Your task to perform on an android device: toggle pop-ups in chrome Image 0: 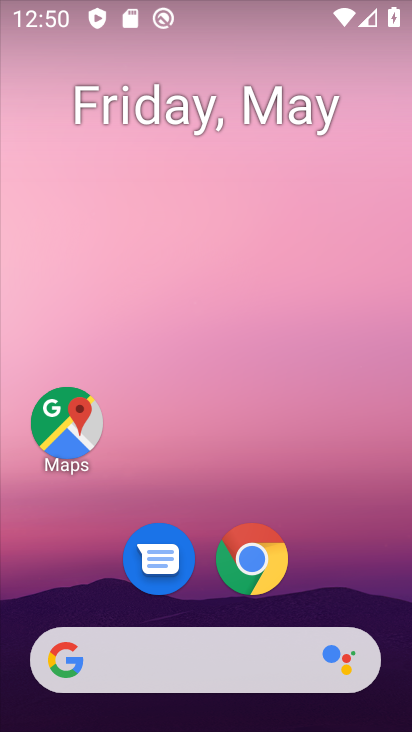
Step 0: click (254, 561)
Your task to perform on an android device: toggle pop-ups in chrome Image 1: 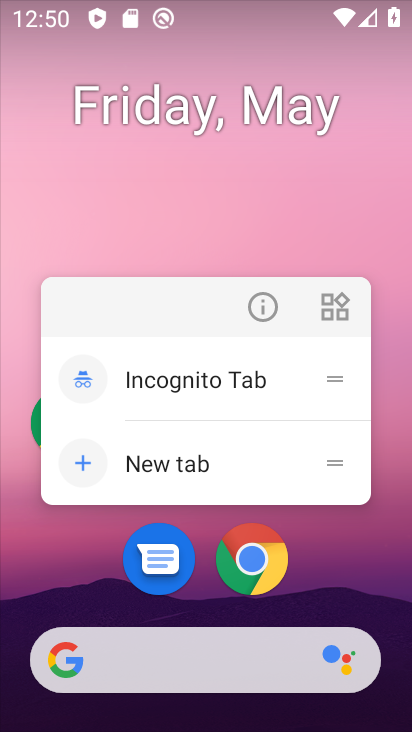
Step 1: click (253, 556)
Your task to perform on an android device: toggle pop-ups in chrome Image 2: 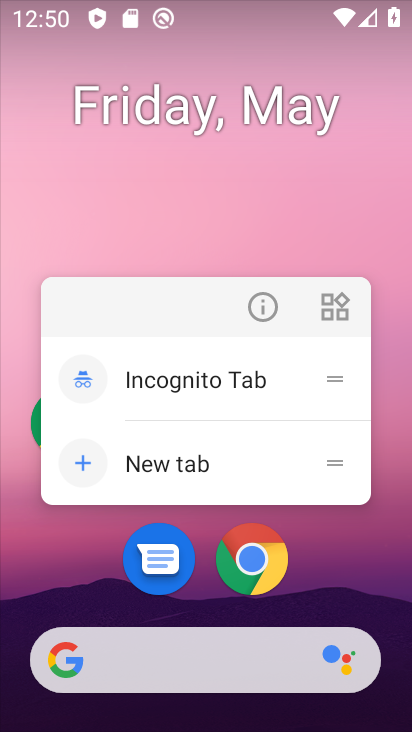
Step 2: click (253, 556)
Your task to perform on an android device: toggle pop-ups in chrome Image 3: 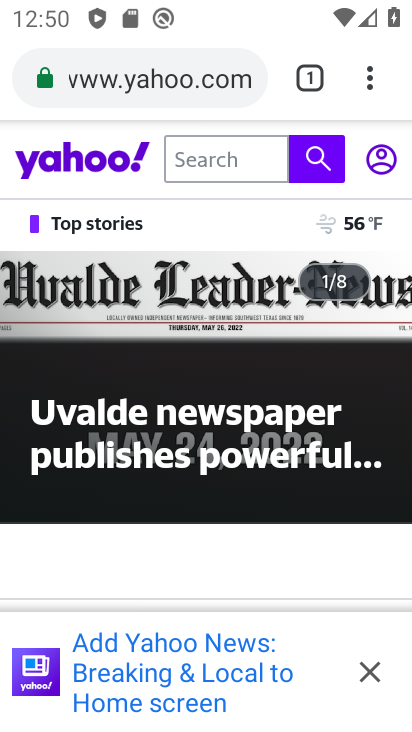
Step 3: drag from (368, 62) to (129, 611)
Your task to perform on an android device: toggle pop-ups in chrome Image 4: 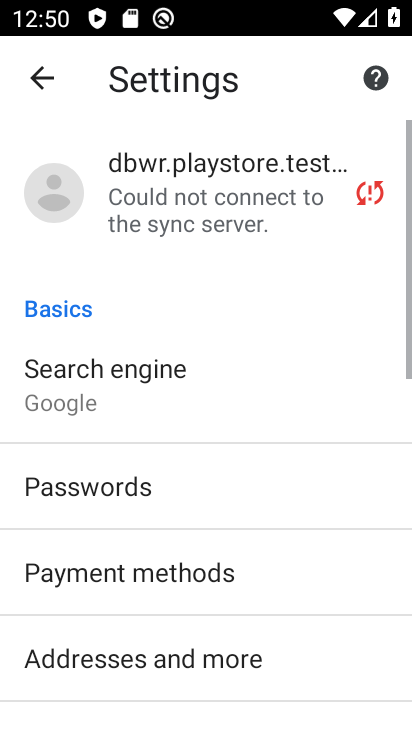
Step 4: drag from (144, 344) to (211, 71)
Your task to perform on an android device: toggle pop-ups in chrome Image 5: 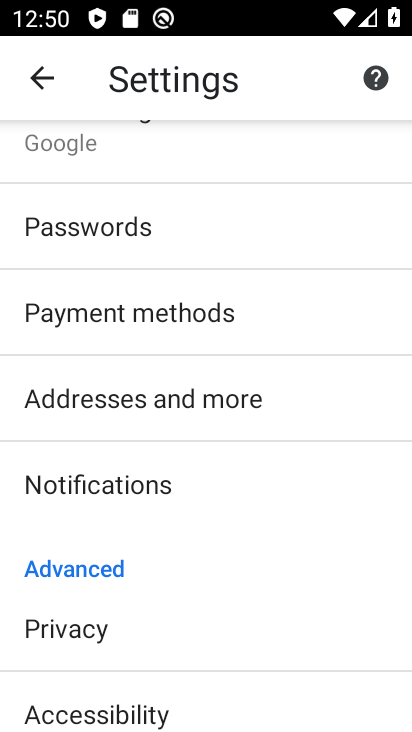
Step 5: drag from (148, 687) to (242, 157)
Your task to perform on an android device: toggle pop-ups in chrome Image 6: 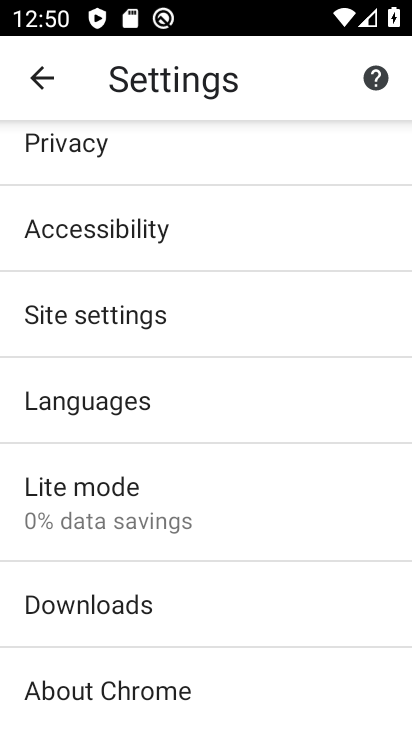
Step 6: drag from (131, 618) to (220, 206)
Your task to perform on an android device: toggle pop-ups in chrome Image 7: 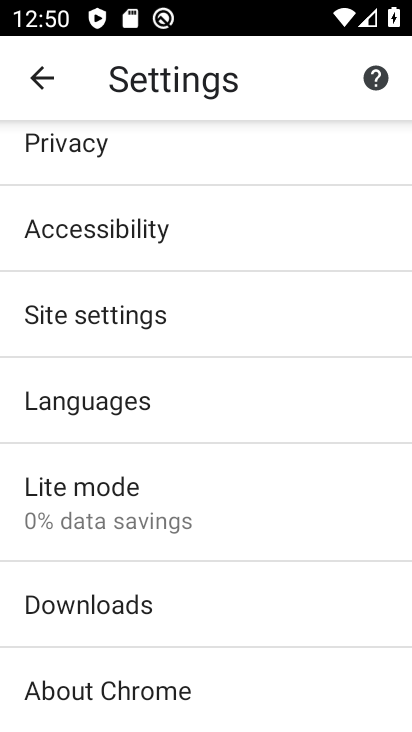
Step 7: drag from (237, 638) to (279, 372)
Your task to perform on an android device: toggle pop-ups in chrome Image 8: 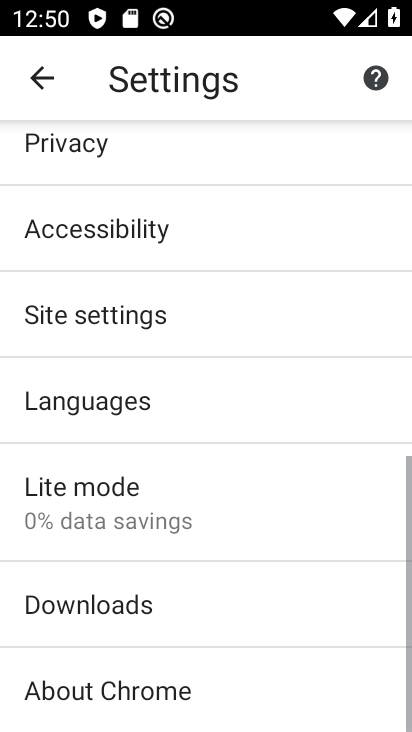
Step 8: click (112, 304)
Your task to perform on an android device: toggle pop-ups in chrome Image 9: 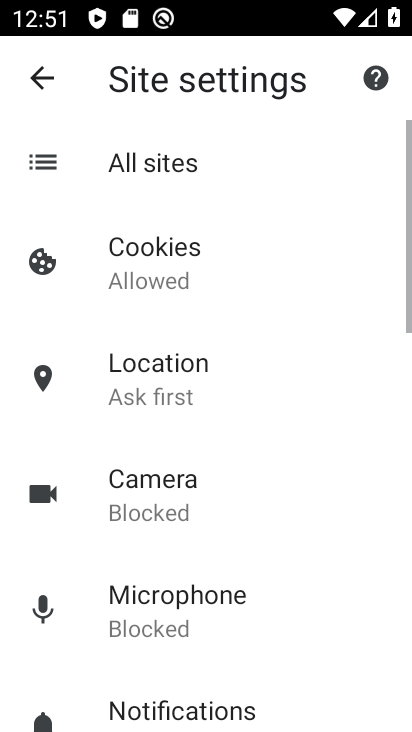
Step 9: drag from (212, 694) to (213, 198)
Your task to perform on an android device: toggle pop-ups in chrome Image 10: 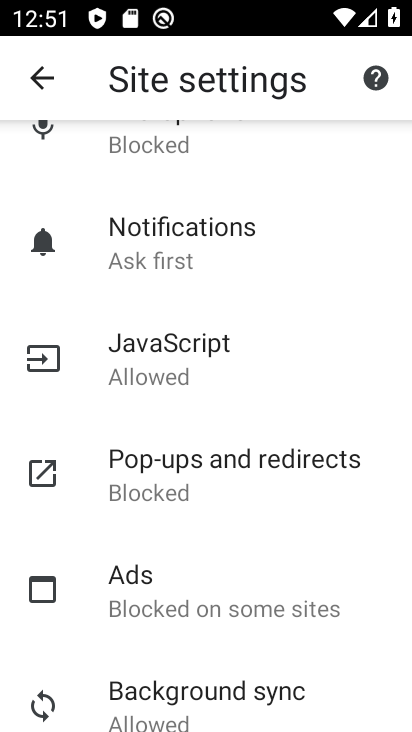
Step 10: click (184, 448)
Your task to perform on an android device: toggle pop-ups in chrome Image 11: 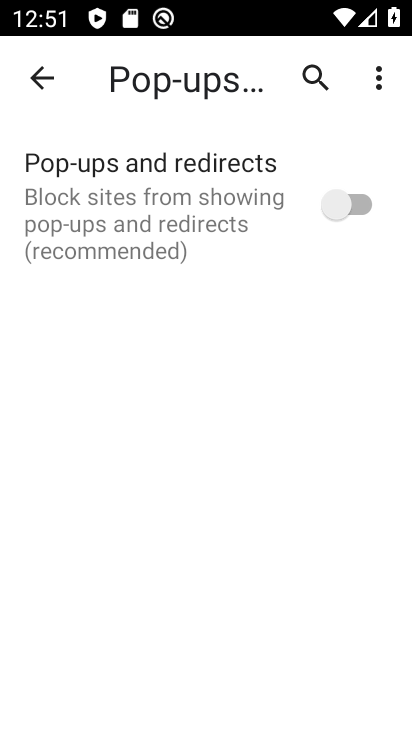
Step 11: click (342, 208)
Your task to perform on an android device: toggle pop-ups in chrome Image 12: 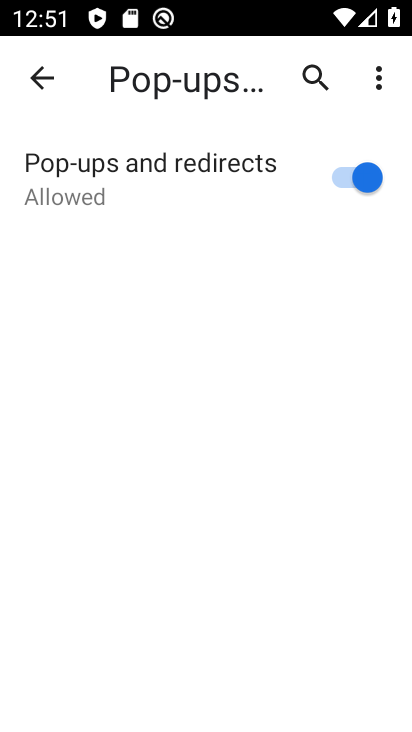
Step 12: task complete